Your task to perform on an android device: empty trash in the gmail app Image 0: 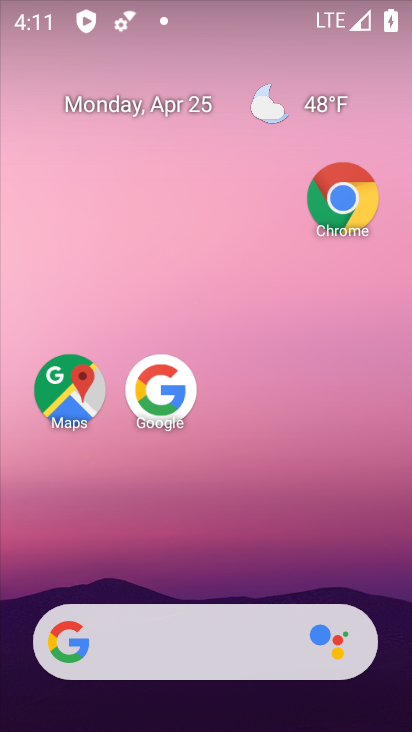
Step 0: drag from (158, 652) to (304, 131)
Your task to perform on an android device: empty trash in the gmail app Image 1: 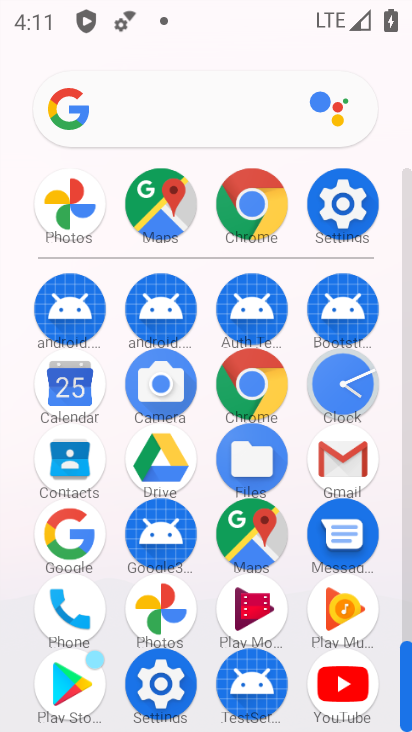
Step 1: click (343, 470)
Your task to perform on an android device: empty trash in the gmail app Image 2: 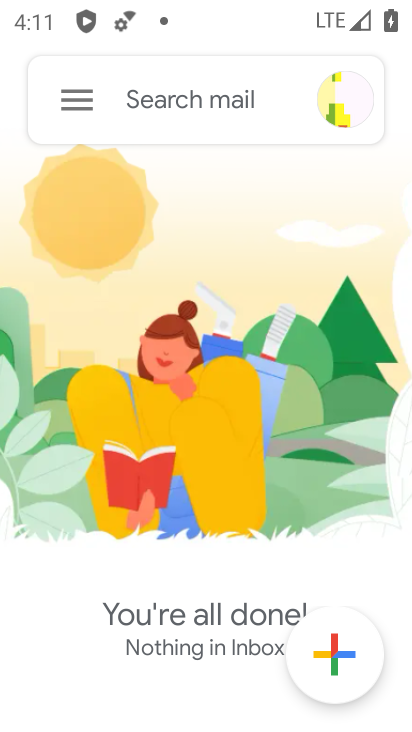
Step 2: click (81, 103)
Your task to perform on an android device: empty trash in the gmail app Image 3: 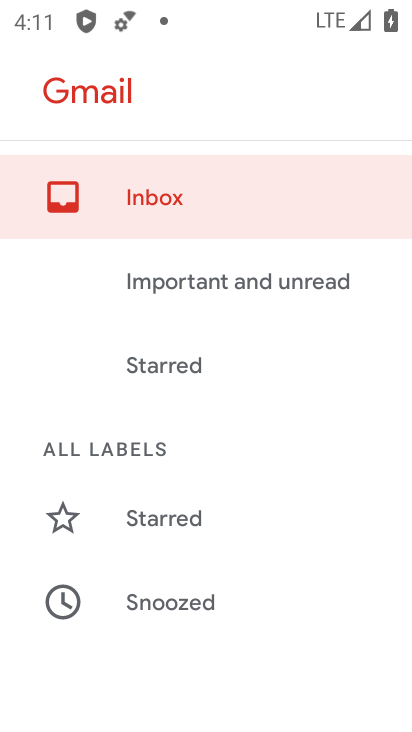
Step 3: drag from (226, 639) to (336, 189)
Your task to perform on an android device: empty trash in the gmail app Image 4: 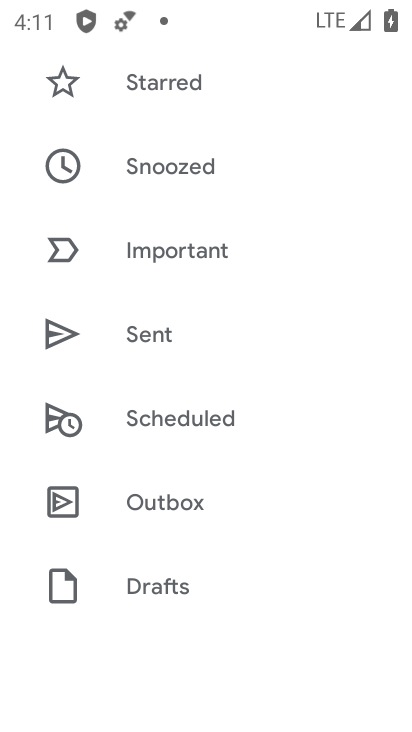
Step 4: drag from (244, 547) to (352, 120)
Your task to perform on an android device: empty trash in the gmail app Image 5: 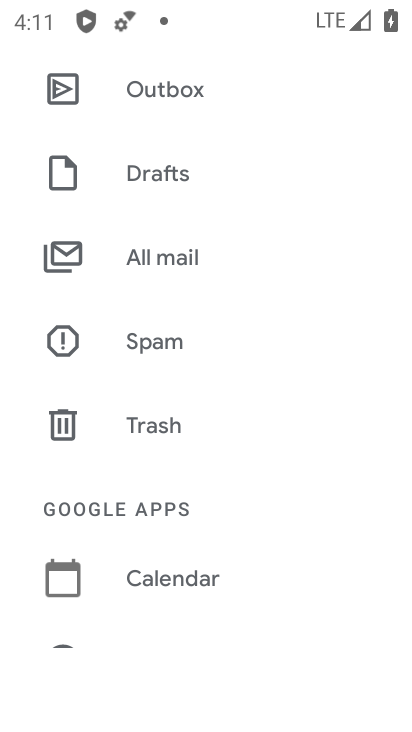
Step 5: click (163, 433)
Your task to perform on an android device: empty trash in the gmail app Image 6: 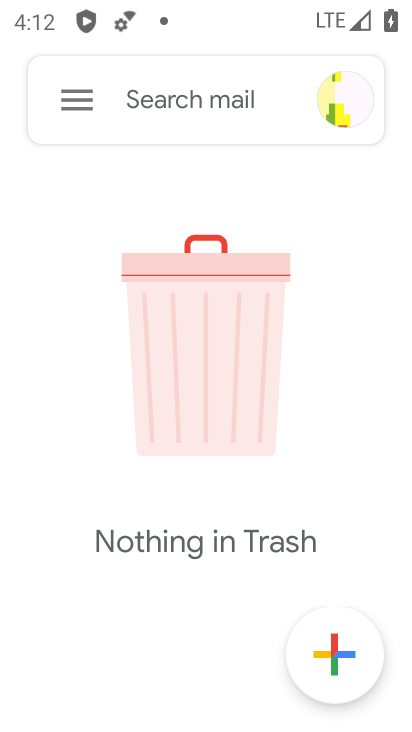
Step 6: task complete